Your task to perform on an android device: Search for Italian restaurants on Maps Image 0: 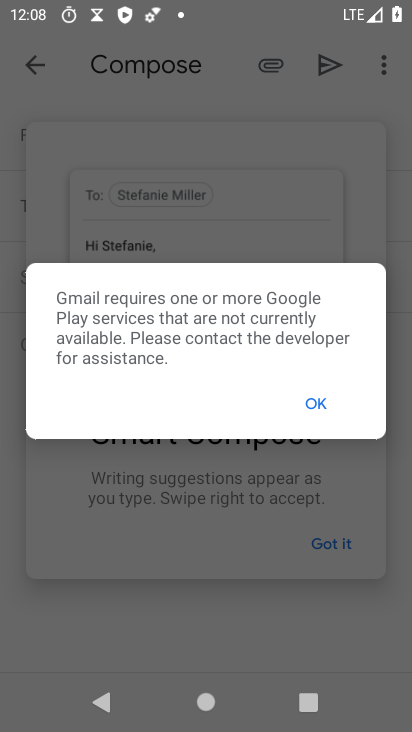
Step 0: click (315, 402)
Your task to perform on an android device: Search for Italian restaurants on Maps Image 1: 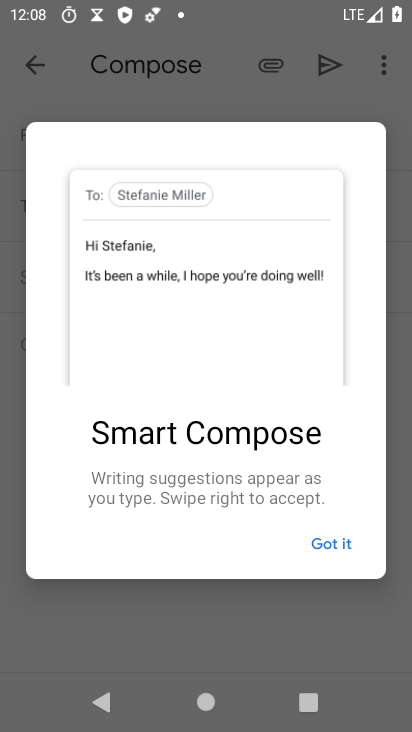
Step 1: press home button
Your task to perform on an android device: Search for Italian restaurants on Maps Image 2: 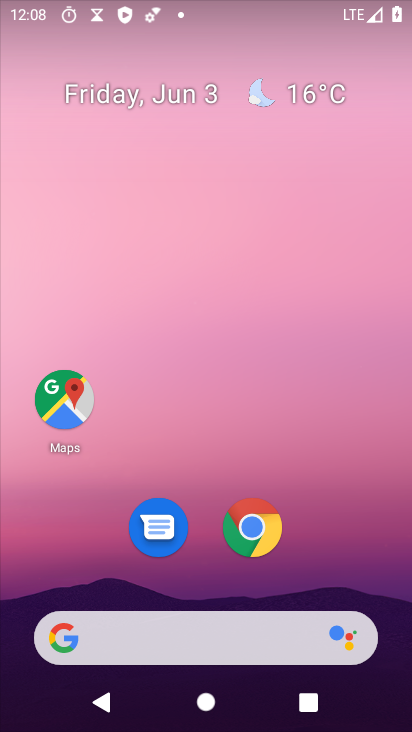
Step 2: click (92, 398)
Your task to perform on an android device: Search for Italian restaurants on Maps Image 3: 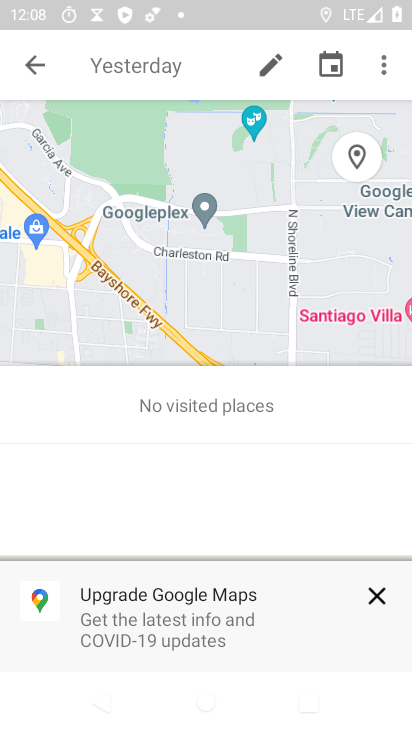
Step 3: click (40, 62)
Your task to perform on an android device: Search for Italian restaurants on Maps Image 4: 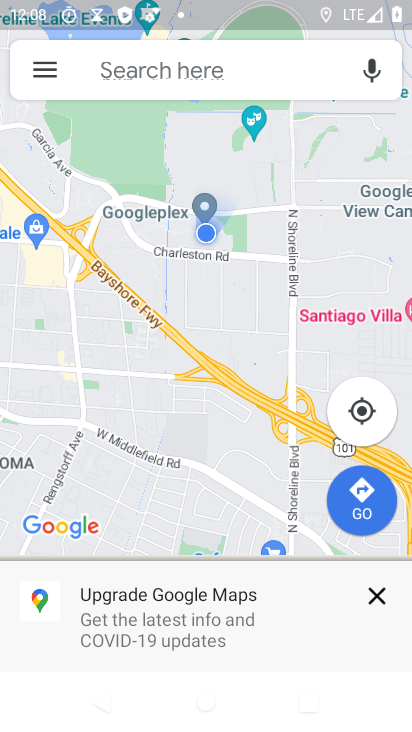
Step 4: click (25, 65)
Your task to perform on an android device: Search for Italian restaurants on Maps Image 5: 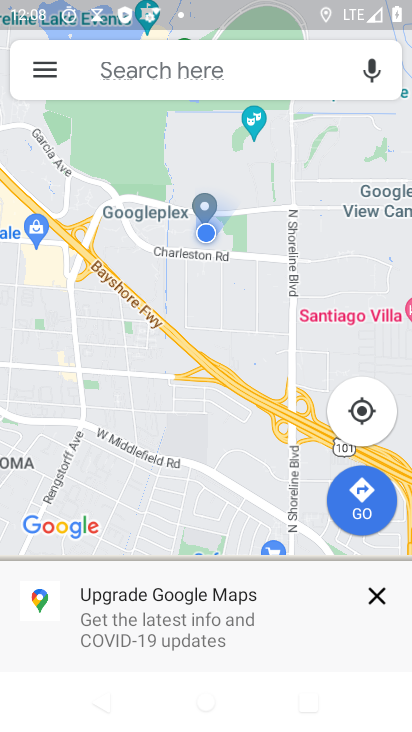
Step 5: click (206, 71)
Your task to perform on an android device: Search for Italian restaurants on Maps Image 6: 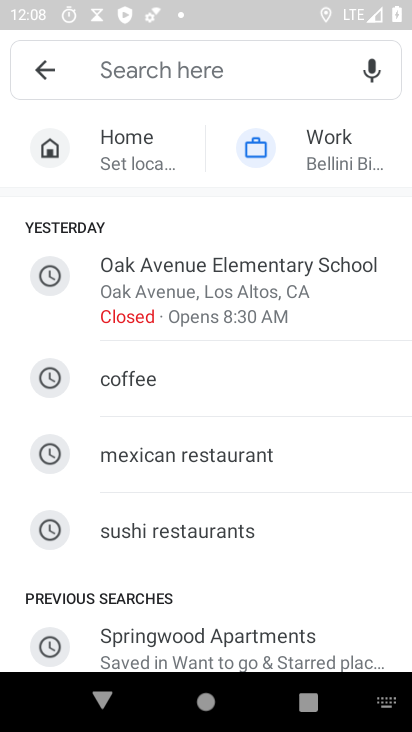
Step 6: type "italian restaurants"
Your task to perform on an android device: Search for Italian restaurants on Maps Image 7: 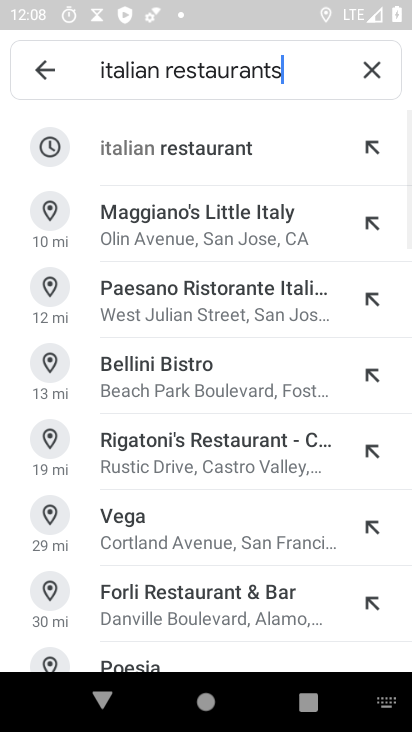
Step 7: click (227, 143)
Your task to perform on an android device: Search for Italian restaurants on Maps Image 8: 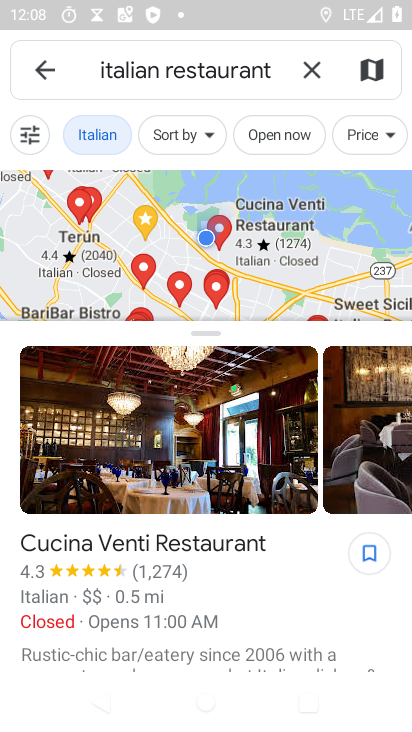
Step 8: task complete